Your task to perform on an android device: Go to Yahoo.com Image 0: 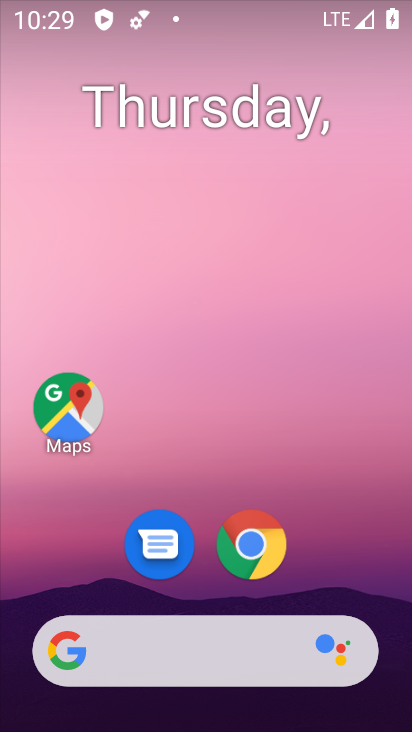
Step 0: click (255, 539)
Your task to perform on an android device: Go to Yahoo.com Image 1: 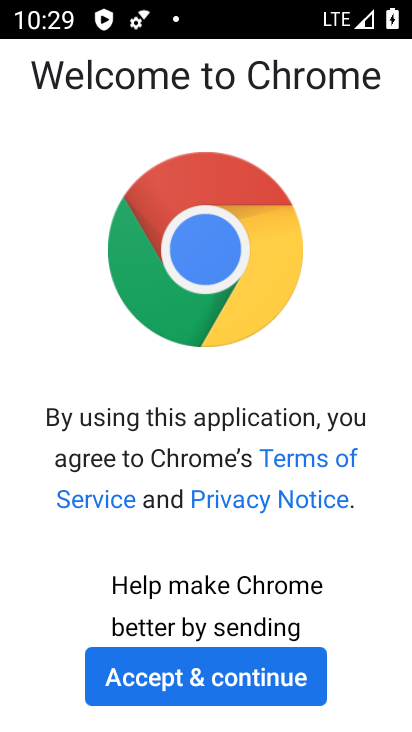
Step 1: click (203, 664)
Your task to perform on an android device: Go to Yahoo.com Image 2: 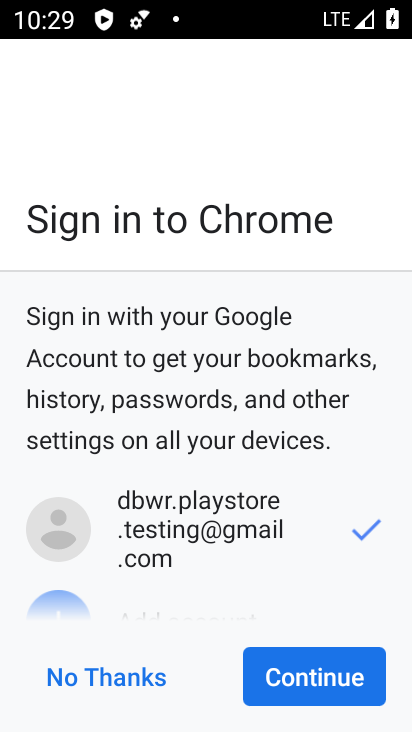
Step 2: click (305, 672)
Your task to perform on an android device: Go to Yahoo.com Image 3: 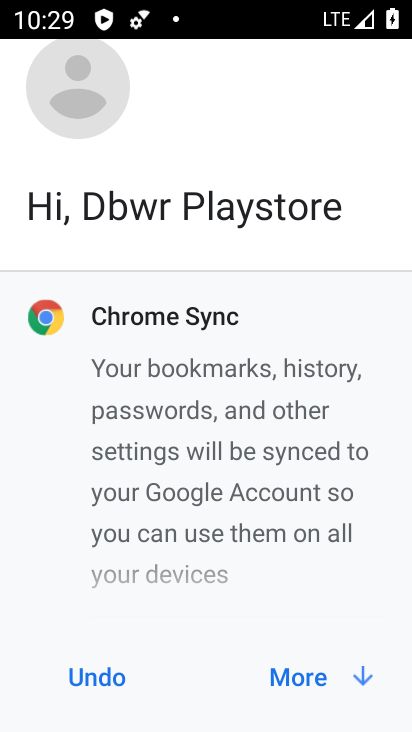
Step 3: click (303, 683)
Your task to perform on an android device: Go to Yahoo.com Image 4: 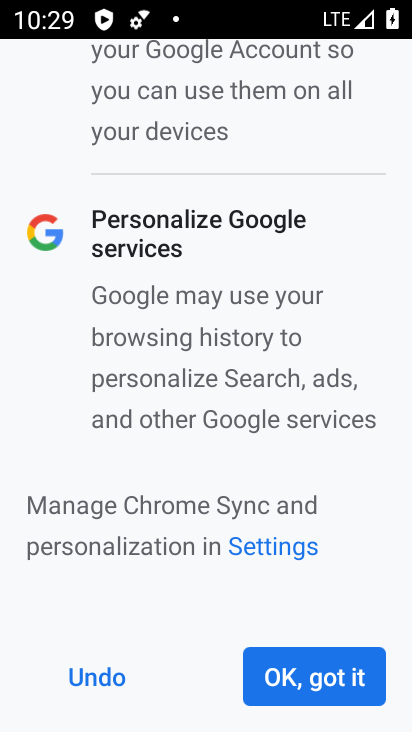
Step 4: click (303, 683)
Your task to perform on an android device: Go to Yahoo.com Image 5: 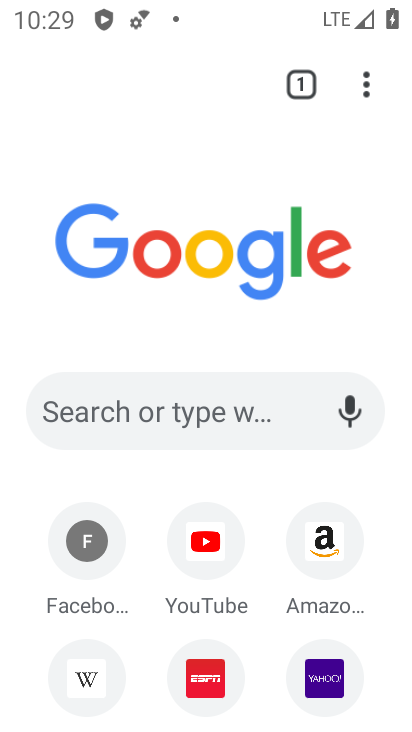
Step 5: click (334, 672)
Your task to perform on an android device: Go to Yahoo.com Image 6: 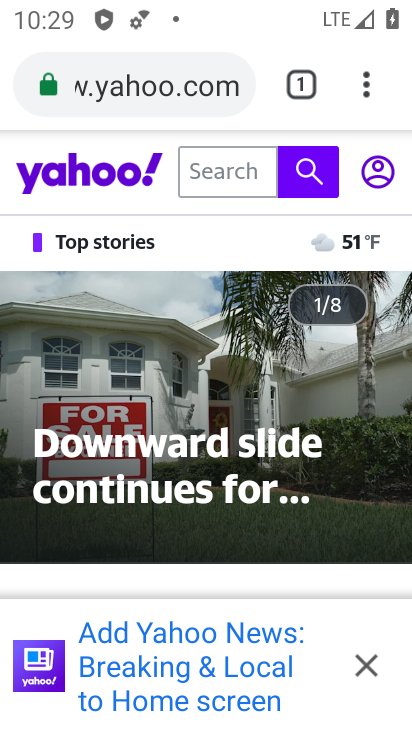
Step 6: task complete